Your task to perform on an android device: What's on my calendar tomorrow? Image 0: 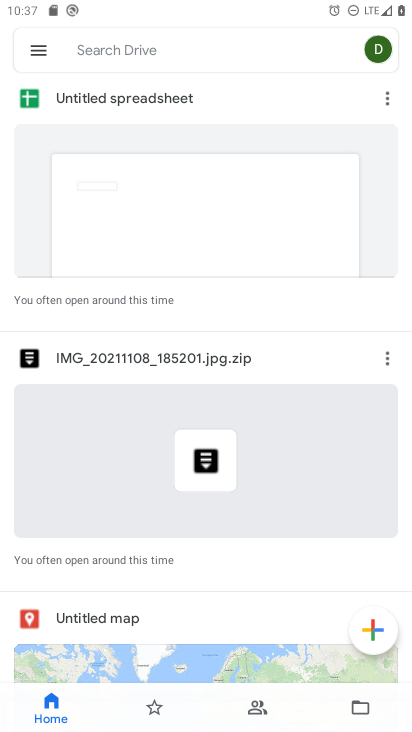
Step 0: press home button
Your task to perform on an android device: What's on my calendar tomorrow? Image 1: 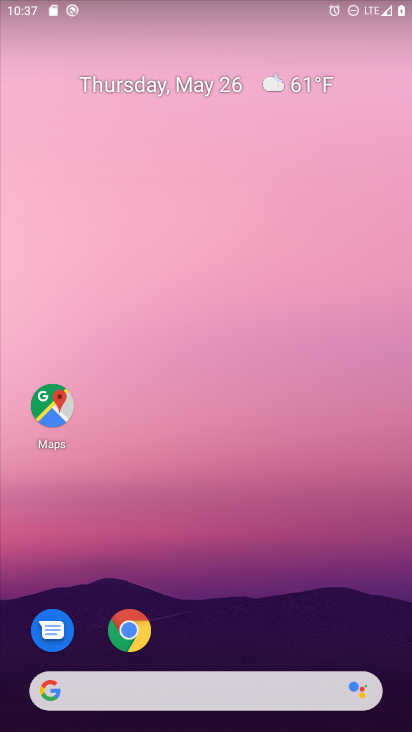
Step 1: drag from (254, 669) to (283, 42)
Your task to perform on an android device: What's on my calendar tomorrow? Image 2: 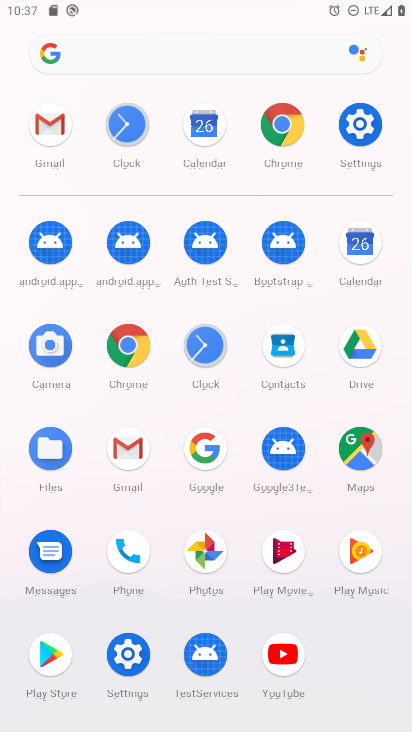
Step 2: click (363, 233)
Your task to perform on an android device: What's on my calendar tomorrow? Image 3: 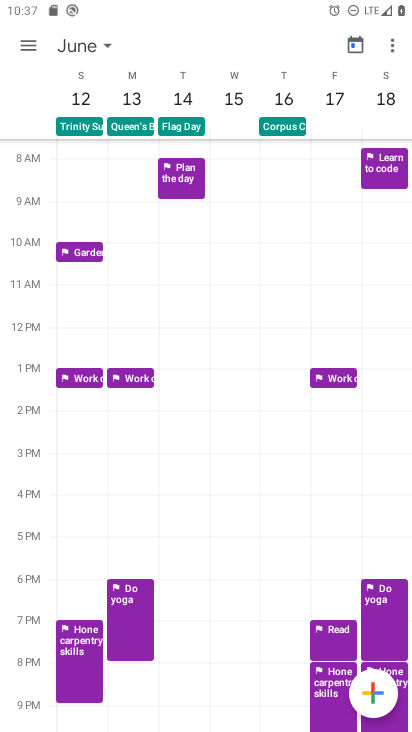
Step 3: click (29, 40)
Your task to perform on an android device: What's on my calendar tomorrow? Image 4: 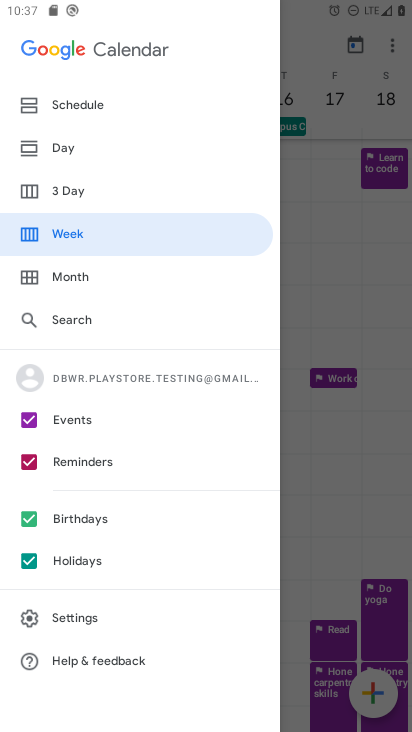
Step 4: click (59, 195)
Your task to perform on an android device: What's on my calendar tomorrow? Image 5: 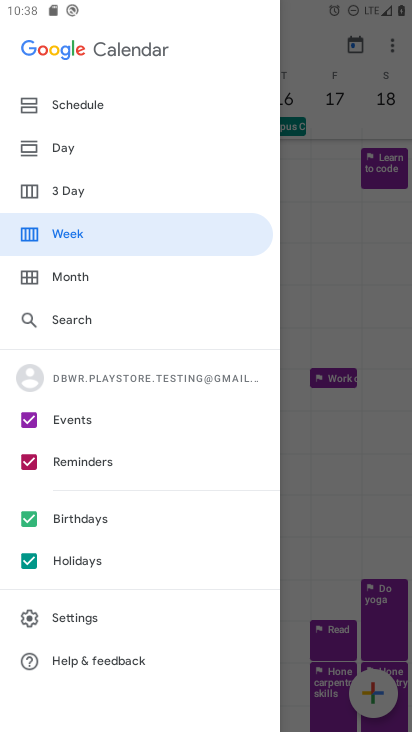
Step 5: click (55, 181)
Your task to perform on an android device: What's on my calendar tomorrow? Image 6: 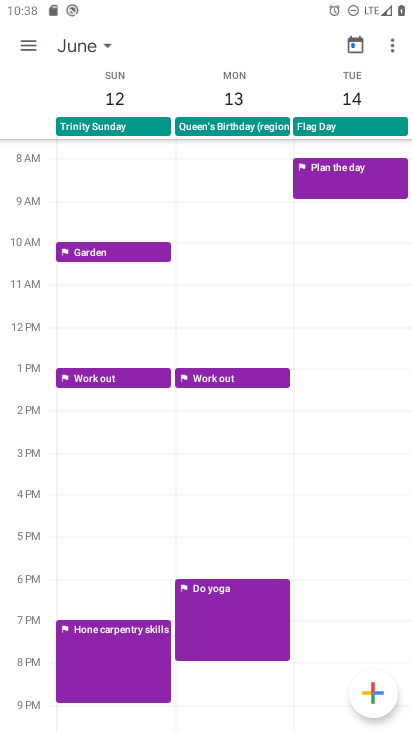
Step 6: click (351, 49)
Your task to perform on an android device: What's on my calendar tomorrow? Image 7: 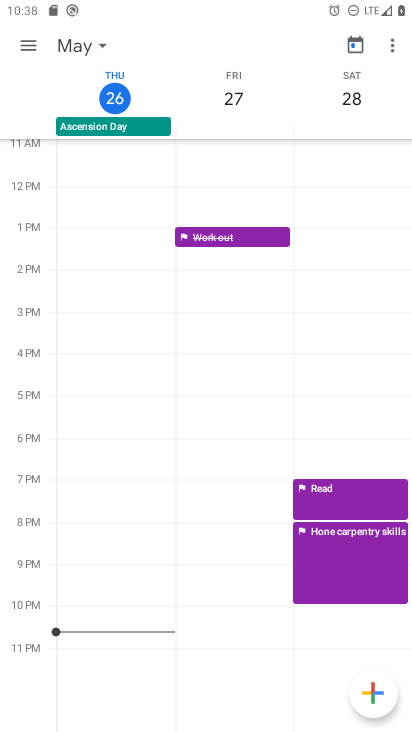
Step 7: click (225, 92)
Your task to perform on an android device: What's on my calendar tomorrow? Image 8: 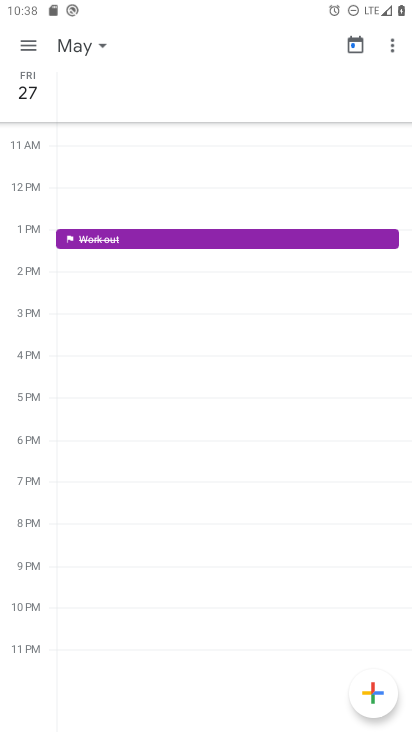
Step 8: task complete